Your task to perform on an android device: open sync settings in chrome Image 0: 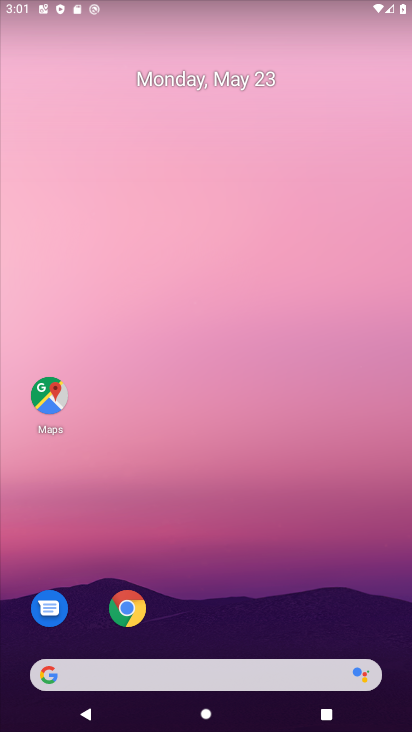
Step 0: click (128, 610)
Your task to perform on an android device: open sync settings in chrome Image 1: 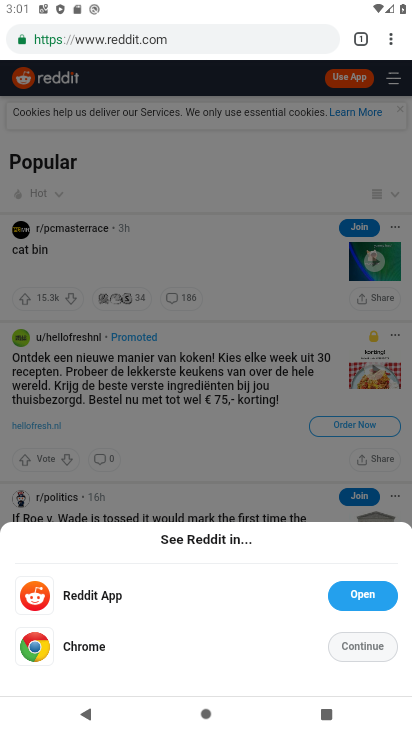
Step 1: click (394, 38)
Your task to perform on an android device: open sync settings in chrome Image 2: 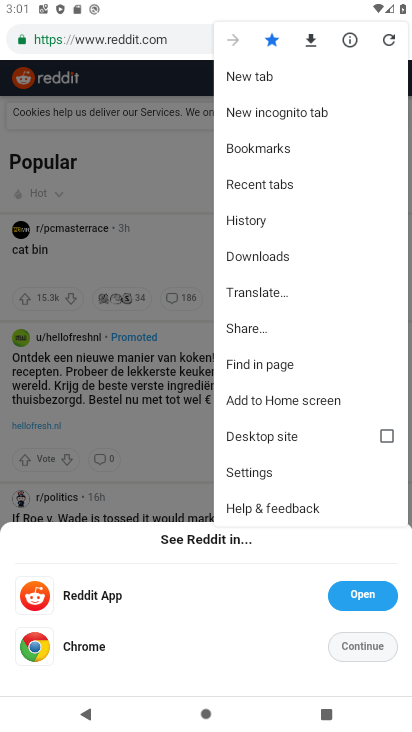
Step 2: click (263, 474)
Your task to perform on an android device: open sync settings in chrome Image 3: 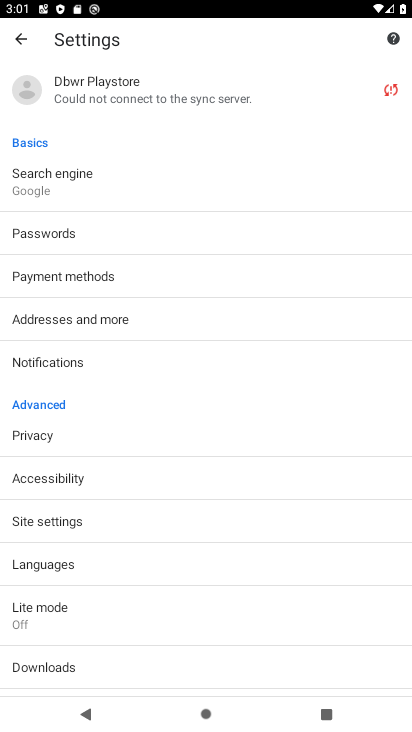
Step 3: click (50, 518)
Your task to perform on an android device: open sync settings in chrome Image 4: 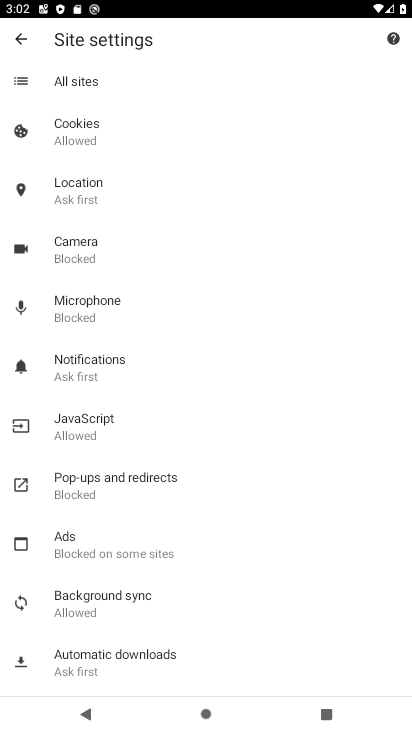
Step 4: click (96, 604)
Your task to perform on an android device: open sync settings in chrome Image 5: 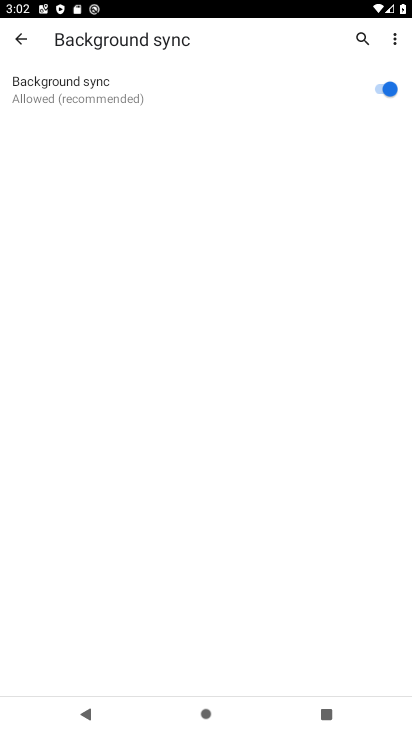
Step 5: task complete